Your task to perform on an android device: Open calendar and show me the fourth week of next month Image 0: 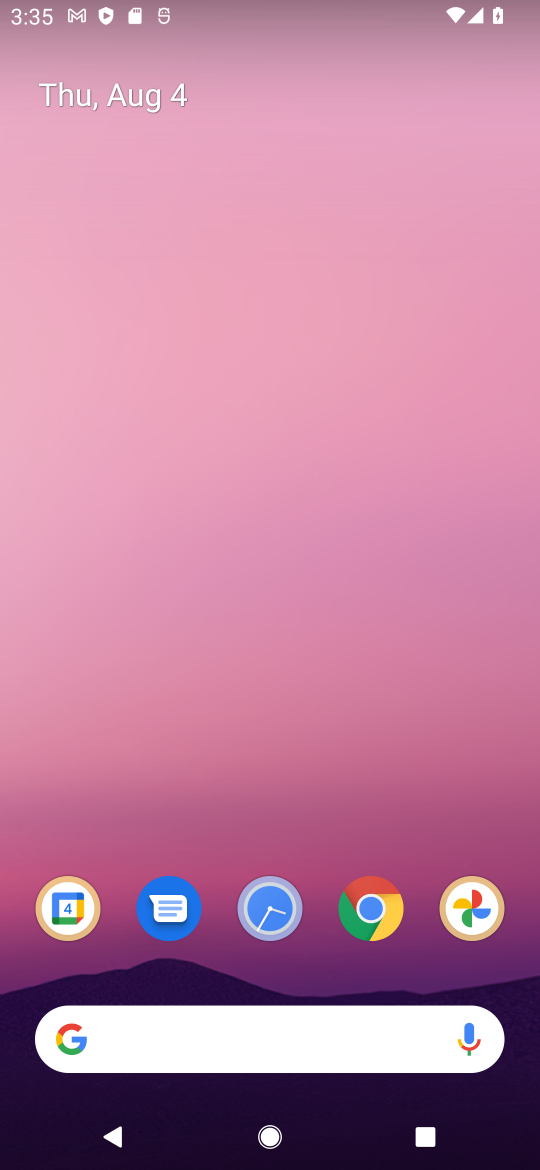
Step 0: click (70, 905)
Your task to perform on an android device: Open calendar and show me the fourth week of next month Image 1: 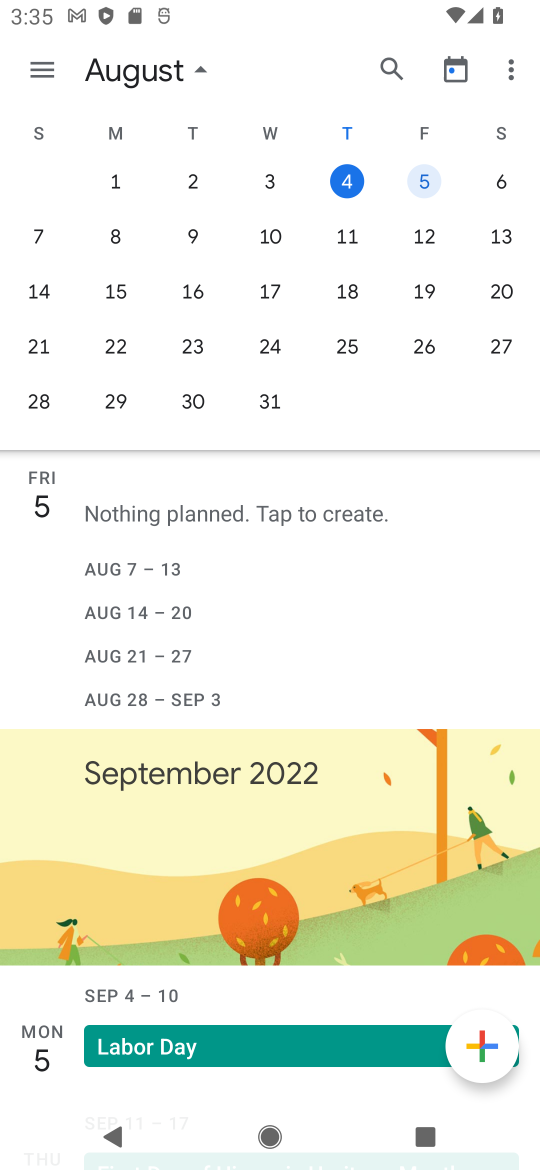
Step 1: drag from (516, 314) to (82, 304)
Your task to perform on an android device: Open calendar and show me the fourth week of next month Image 2: 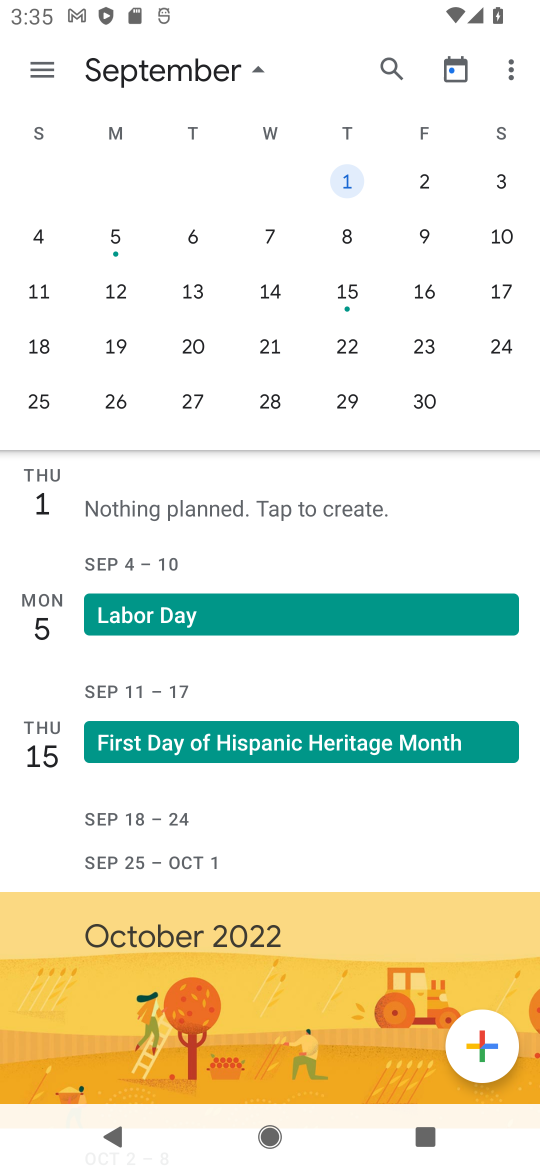
Step 2: click (47, 348)
Your task to perform on an android device: Open calendar and show me the fourth week of next month Image 3: 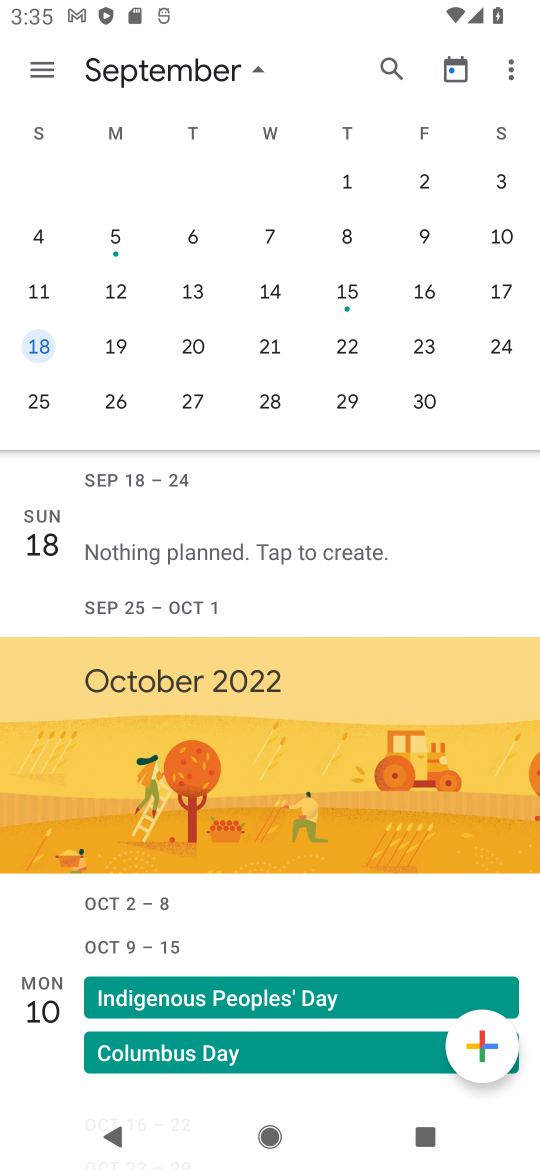
Step 3: task complete